Your task to perform on an android device: Open internet settings Image 0: 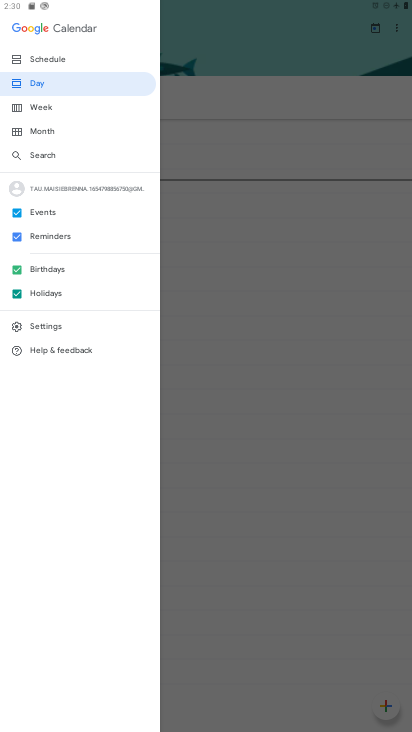
Step 0: press home button
Your task to perform on an android device: Open internet settings Image 1: 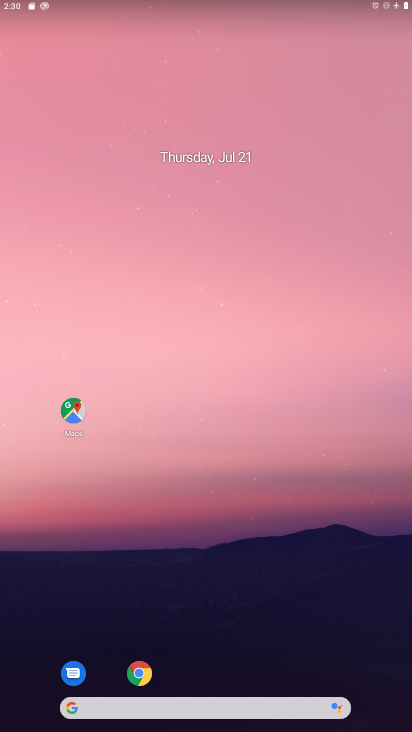
Step 1: drag from (295, 669) to (218, 189)
Your task to perform on an android device: Open internet settings Image 2: 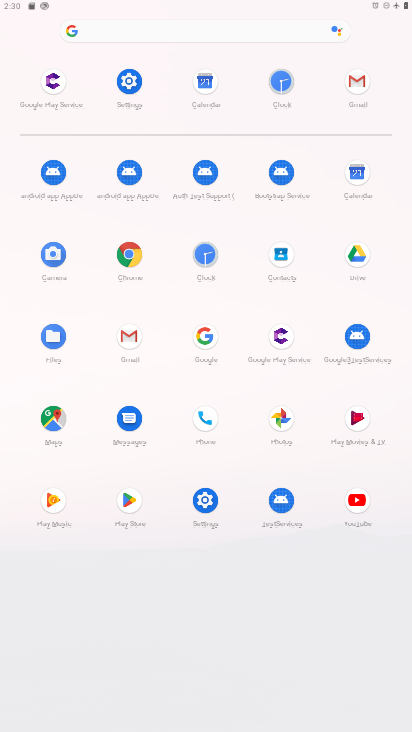
Step 2: click (125, 76)
Your task to perform on an android device: Open internet settings Image 3: 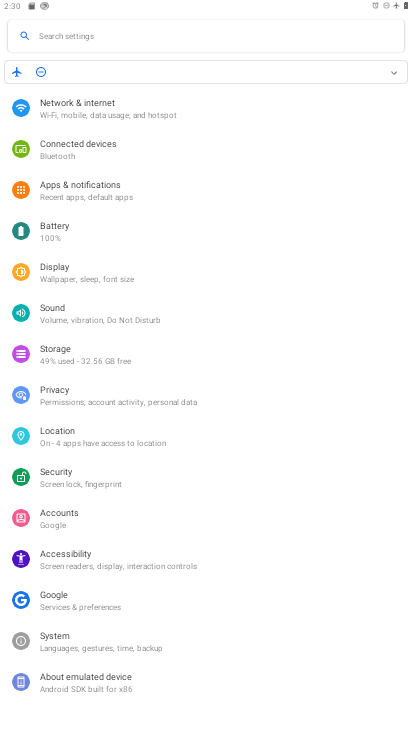
Step 3: click (116, 101)
Your task to perform on an android device: Open internet settings Image 4: 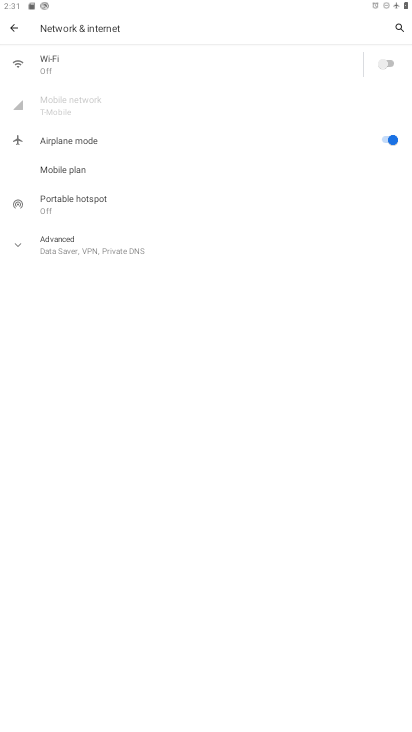
Step 4: task complete